Your task to perform on an android device: set the stopwatch Image 0: 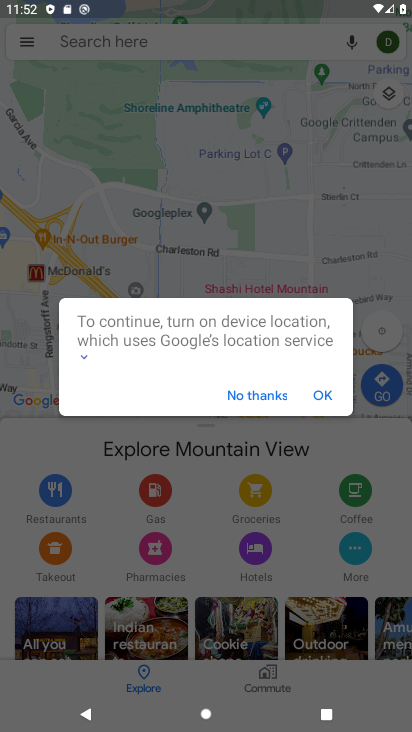
Step 0: press home button
Your task to perform on an android device: set the stopwatch Image 1: 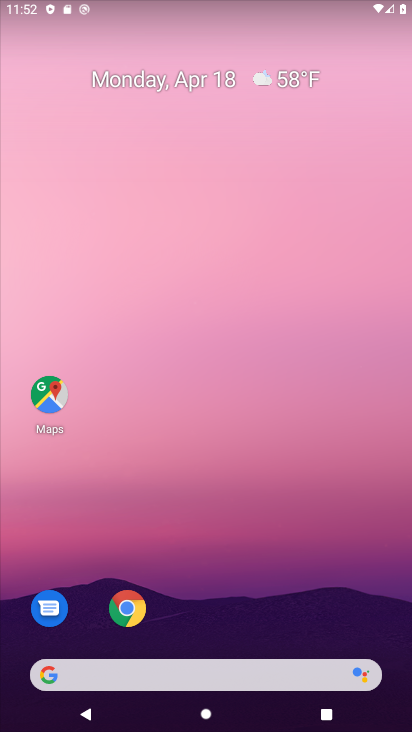
Step 1: drag from (311, 571) to (271, 92)
Your task to perform on an android device: set the stopwatch Image 2: 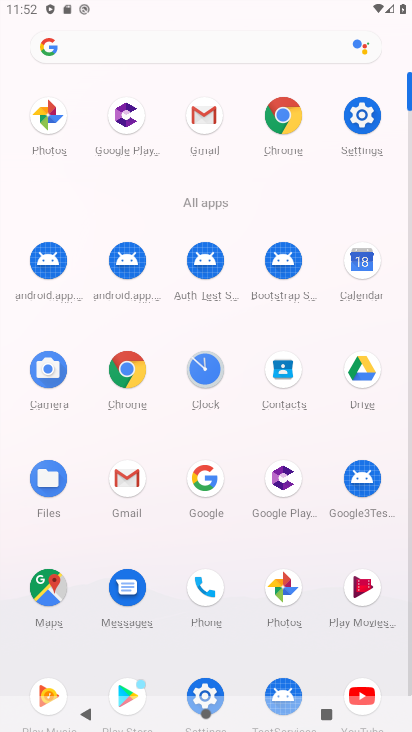
Step 2: click (205, 373)
Your task to perform on an android device: set the stopwatch Image 3: 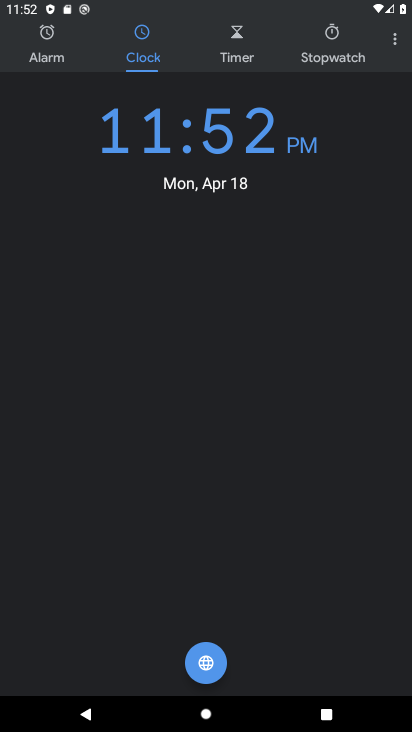
Step 3: click (325, 53)
Your task to perform on an android device: set the stopwatch Image 4: 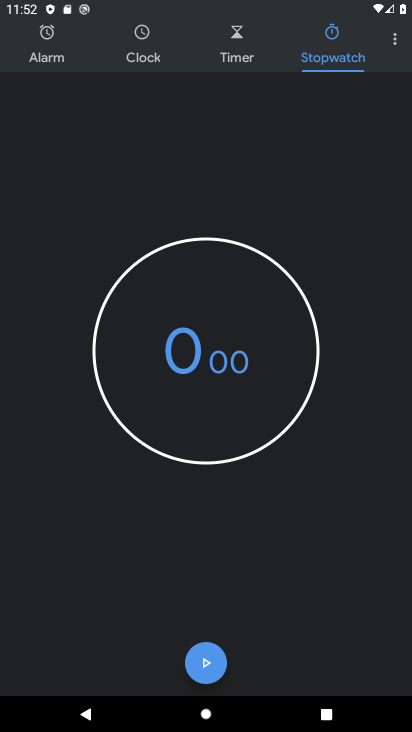
Step 4: click (210, 664)
Your task to perform on an android device: set the stopwatch Image 5: 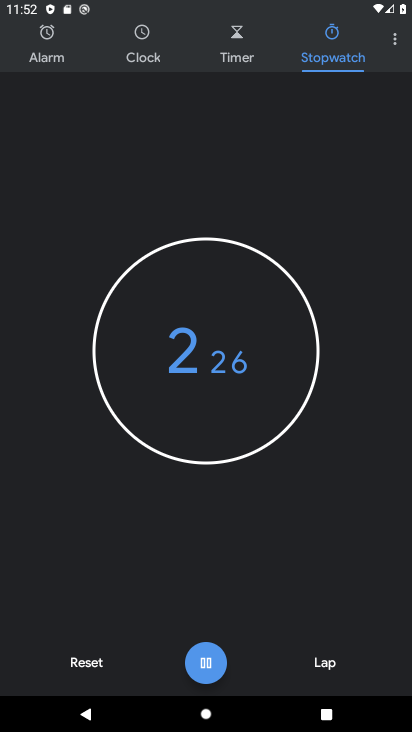
Step 5: click (211, 663)
Your task to perform on an android device: set the stopwatch Image 6: 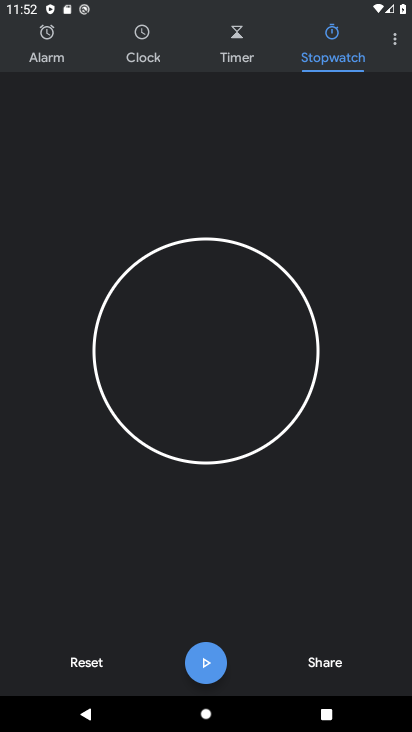
Step 6: task complete